Your task to perform on an android device: turn off notifications settings in the gmail app Image 0: 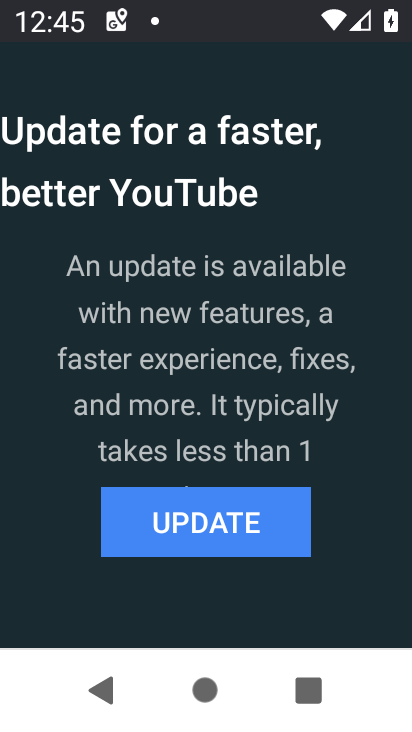
Step 0: press back button
Your task to perform on an android device: turn off notifications settings in the gmail app Image 1: 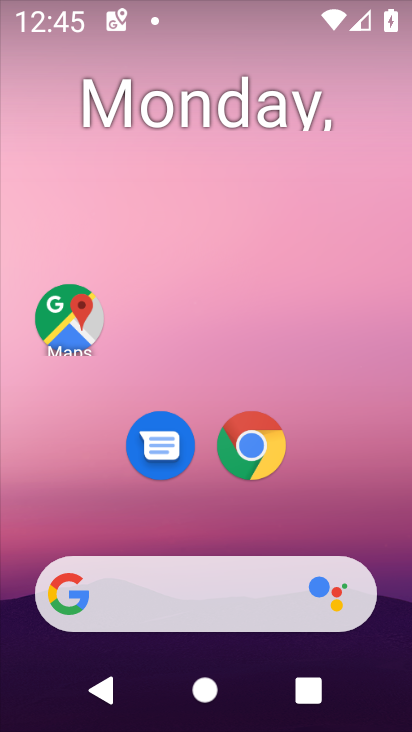
Step 1: drag from (324, 511) to (265, 141)
Your task to perform on an android device: turn off notifications settings in the gmail app Image 2: 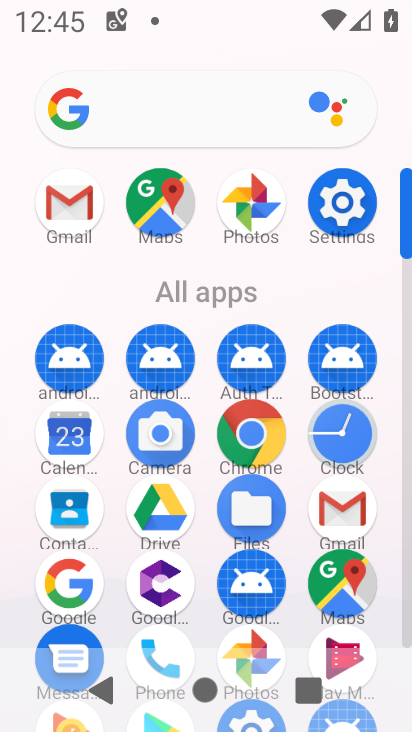
Step 2: click (68, 199)
Your task to perform on an android device: turn off notifications settings in the gmail app Image 3: 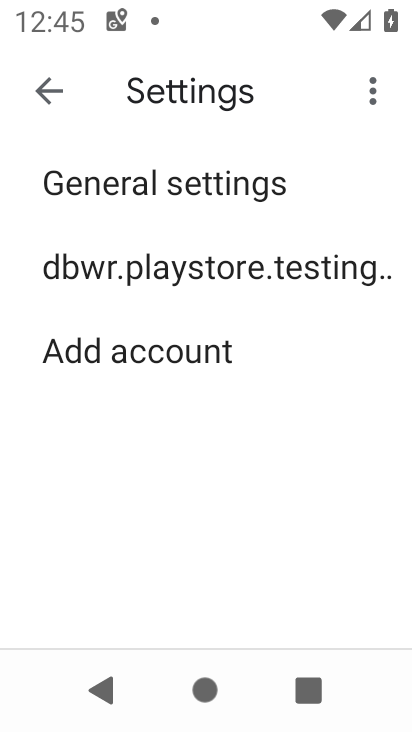
Step 3: click (279, 267)
Your task to perform on an android device: turn off notifications settings in the gmail app Image 4: 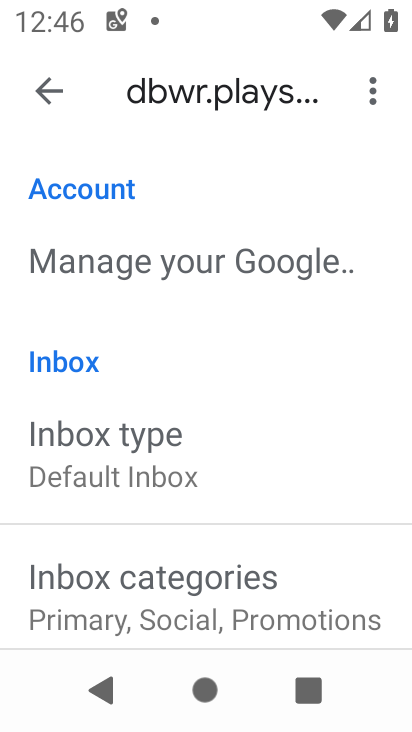
Step 4: drag from (214, 522) to (229, 395)
Your task to perform on an android device: turn off notifications settings in the gmail app Image 5: 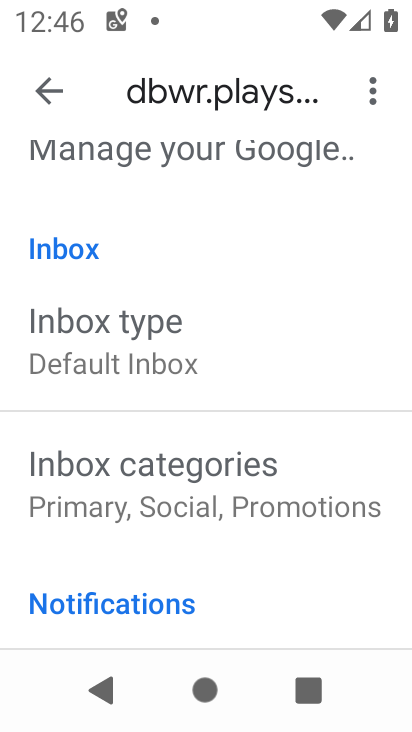
Step 5: drag from (182, 557) to (241, 431)
Your task to perform on an android device: turn off notifications settings in the gmail app Image 6: 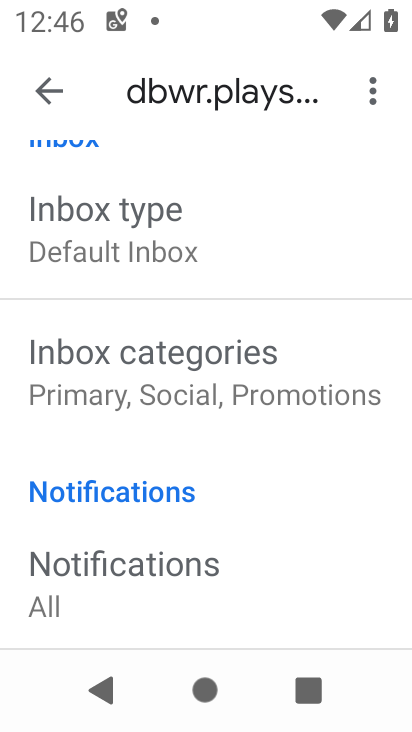
Step 6: drag from (232, 522) to (280, 369)
Your task to perform on an android device: turn off notifications settings in the gmail app Image 7: 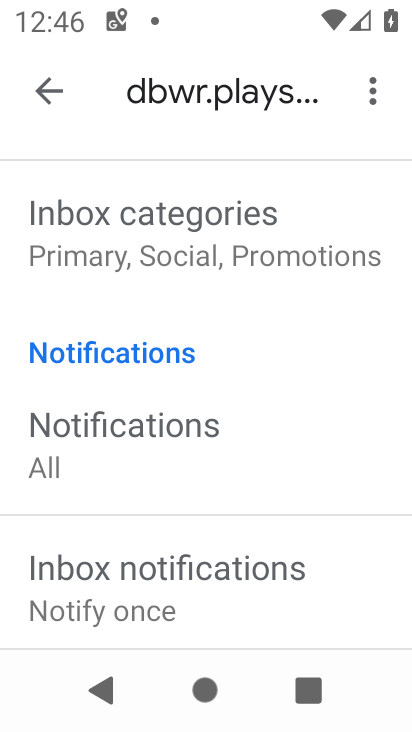
Step 7: drag from (203, 596) to (244, 471)
Your task to perform on an android device: turn off notifications settings in the gmail app Image 8: 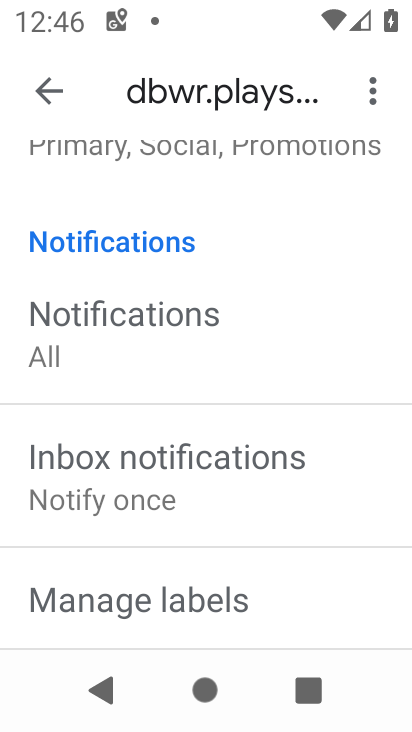
Step 8: drag from (213, 581) to (288, 449)
Your task to perform on an android device: turn off notifications settings in the gmail app Image 9: 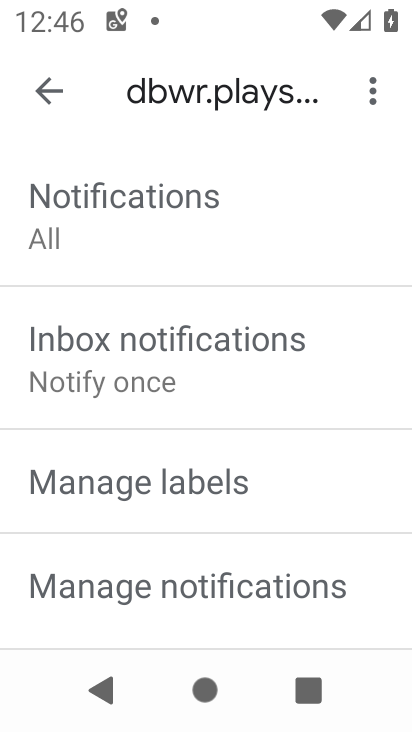
Step 9: drag from (196, 543) to (273, 419)
Your task to perform on an android device: turn off notifications settings in the gmail app Image 10: 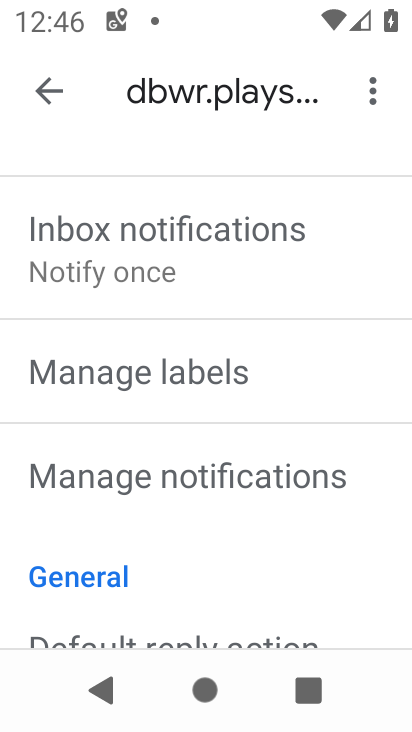
Step 10: click (230, 471)
Your task to perform on an android device: turn off notifications settings in the gmail app Image 11: 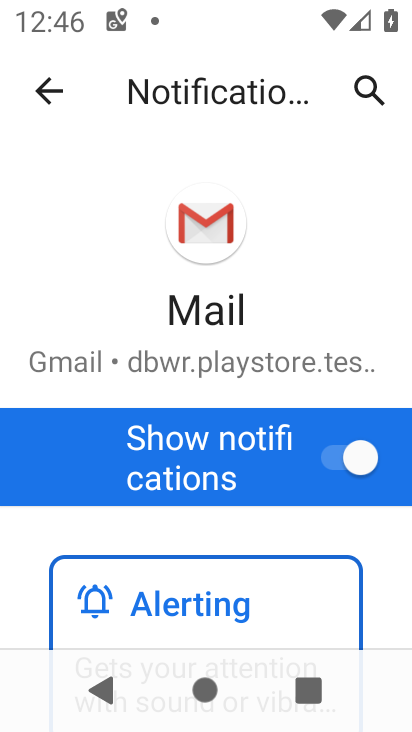
Step 11: click (358, 468)
Your task to perform on an android device: turn off notifications settings in the gmail app Image 12: 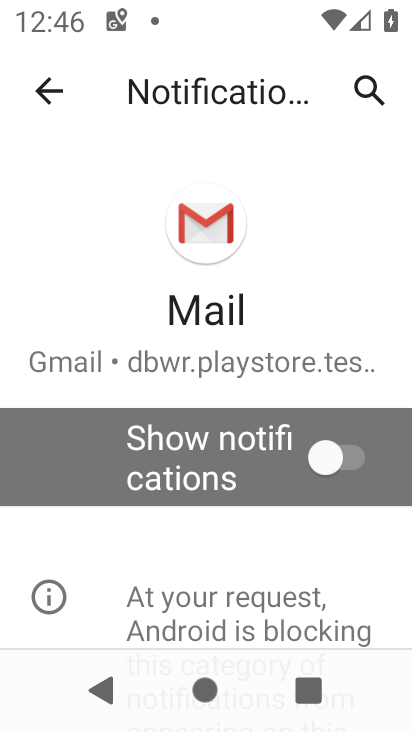
Step 12: task complete